Your task to perform on an android device: Open Chrome and go to settings Image 0: 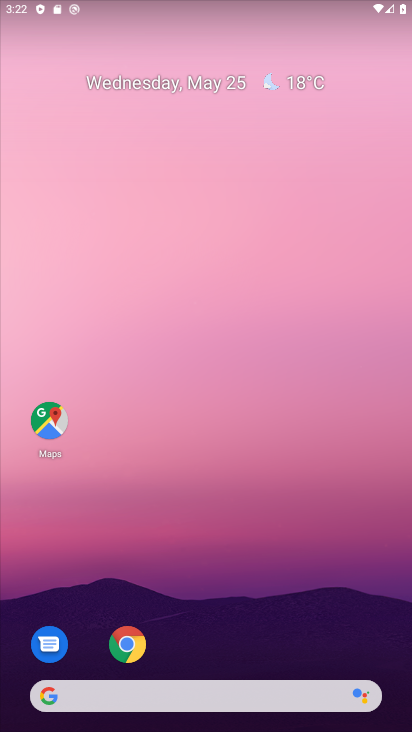
Step 0: click (127, 645)
Your task to perform on an android device: Open Chrome and go to settings Image 1: 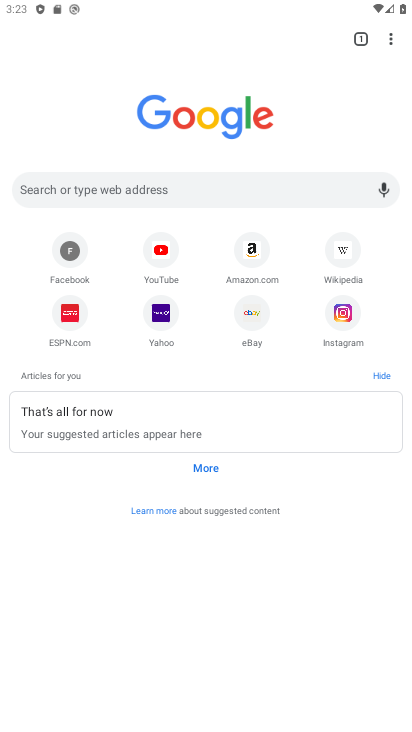
Step 1: click (390, 38)
Your task to perform on an android device: Open Chrome and go to settings Image 2: 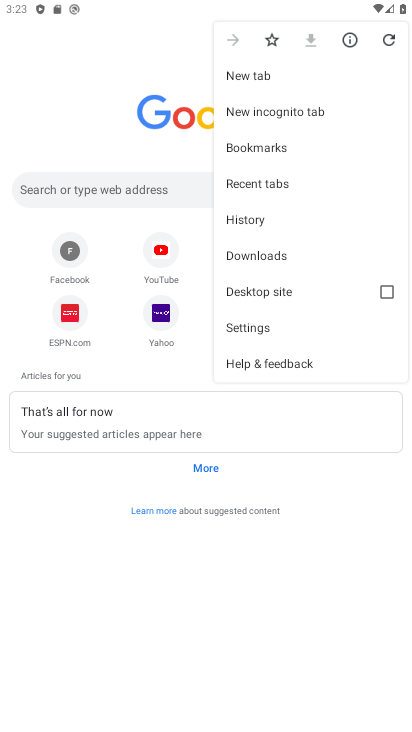
Step 2: click (240, 326)
Your task to perform on an android device: Open Chrome and go to settings Image 3: 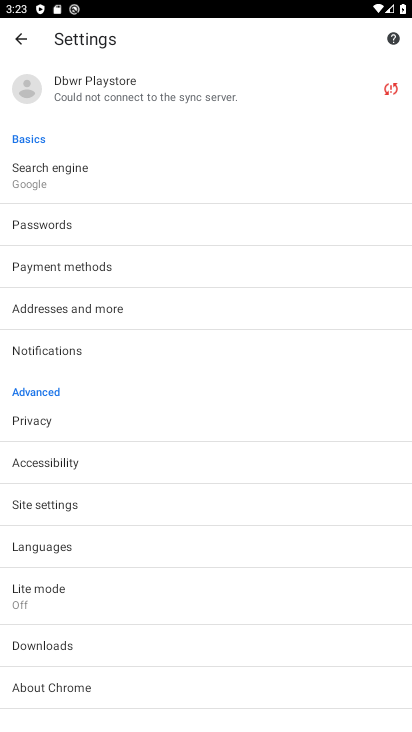
Step 3: task complete